Your task to perform on an android device: uninstall "NewsBreak: Local News & Alerts" Image 0: 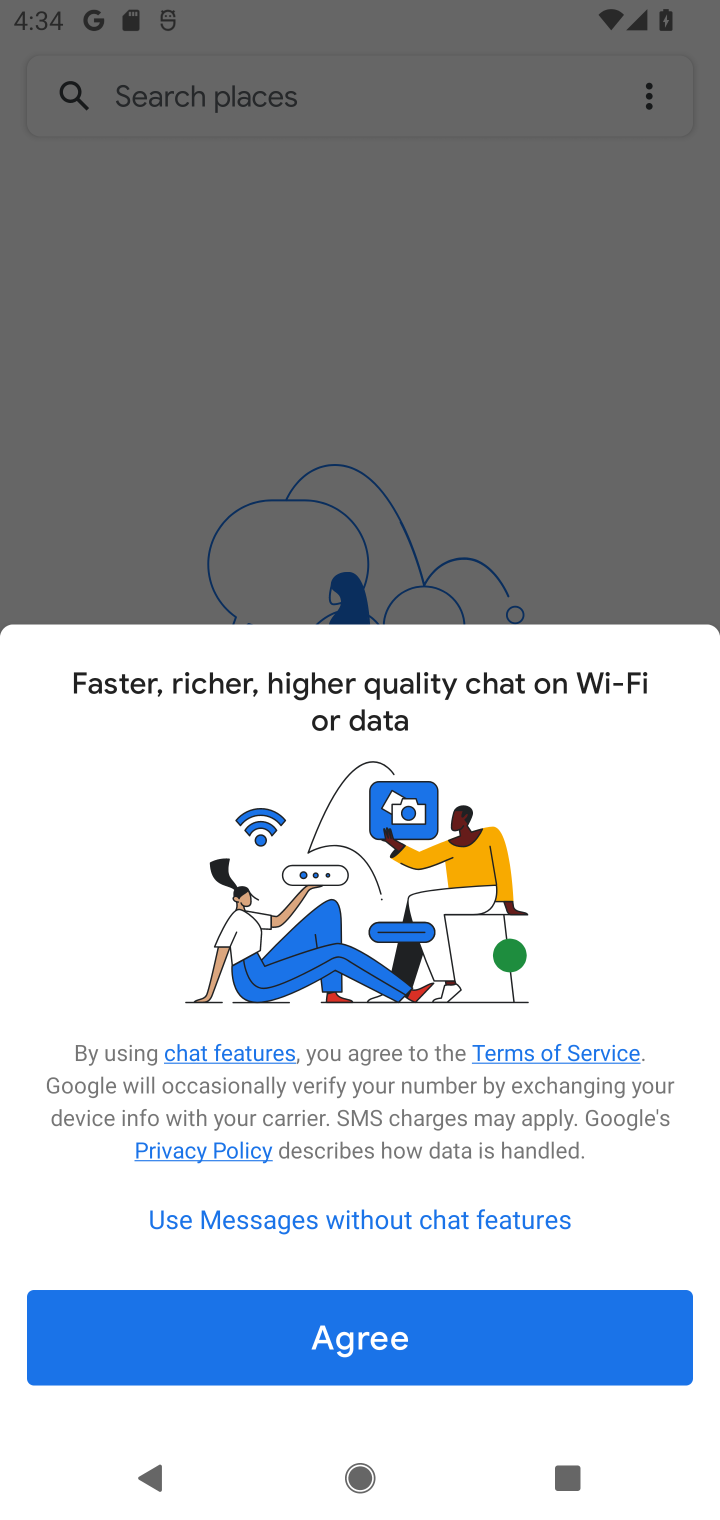
Step 0: press home button
Your task to perform on an android device: uninstall "NewsBreak: Local News & Alerts" Image 1: 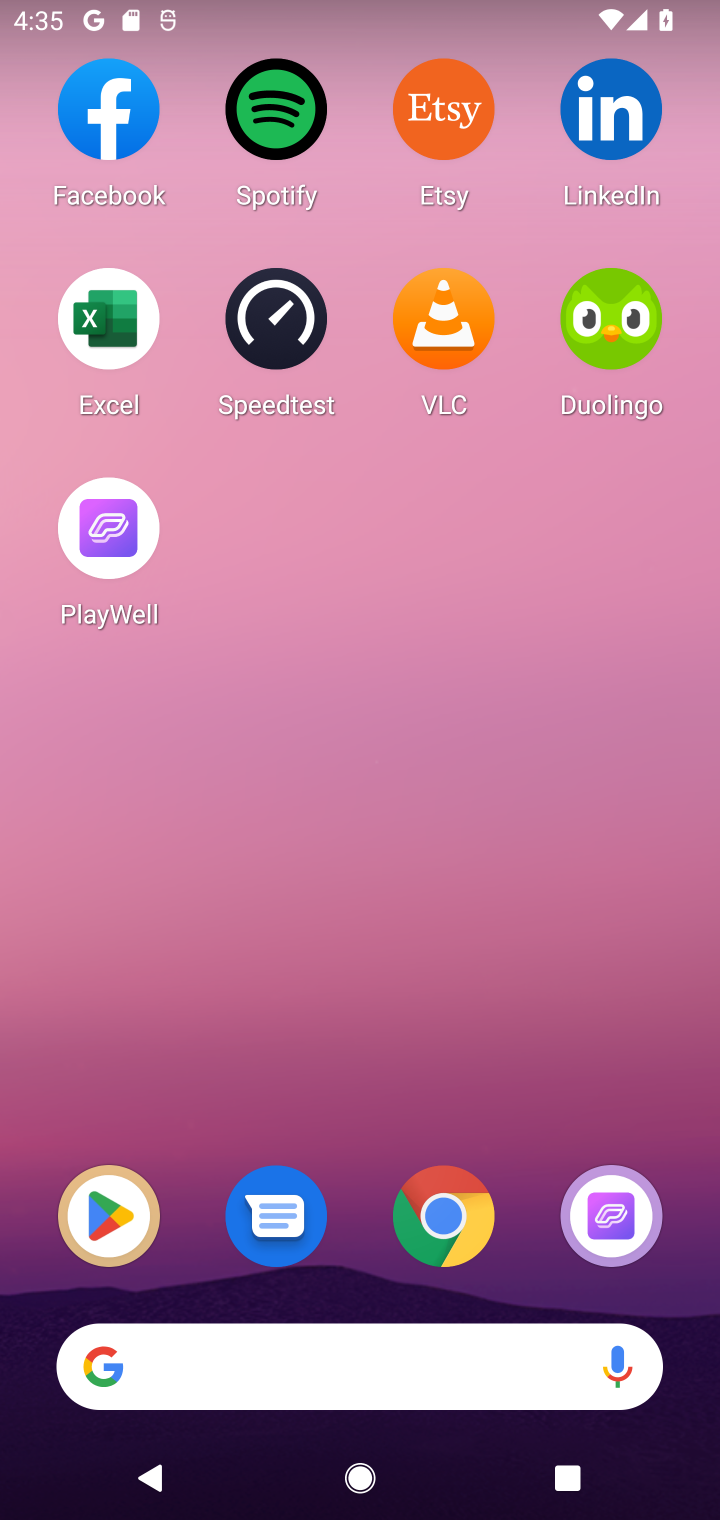
Step 1: click (135, 1202)
Your task to perform on an android device: uninstall "NewsBreak: Local News & Alerts" Image 2: 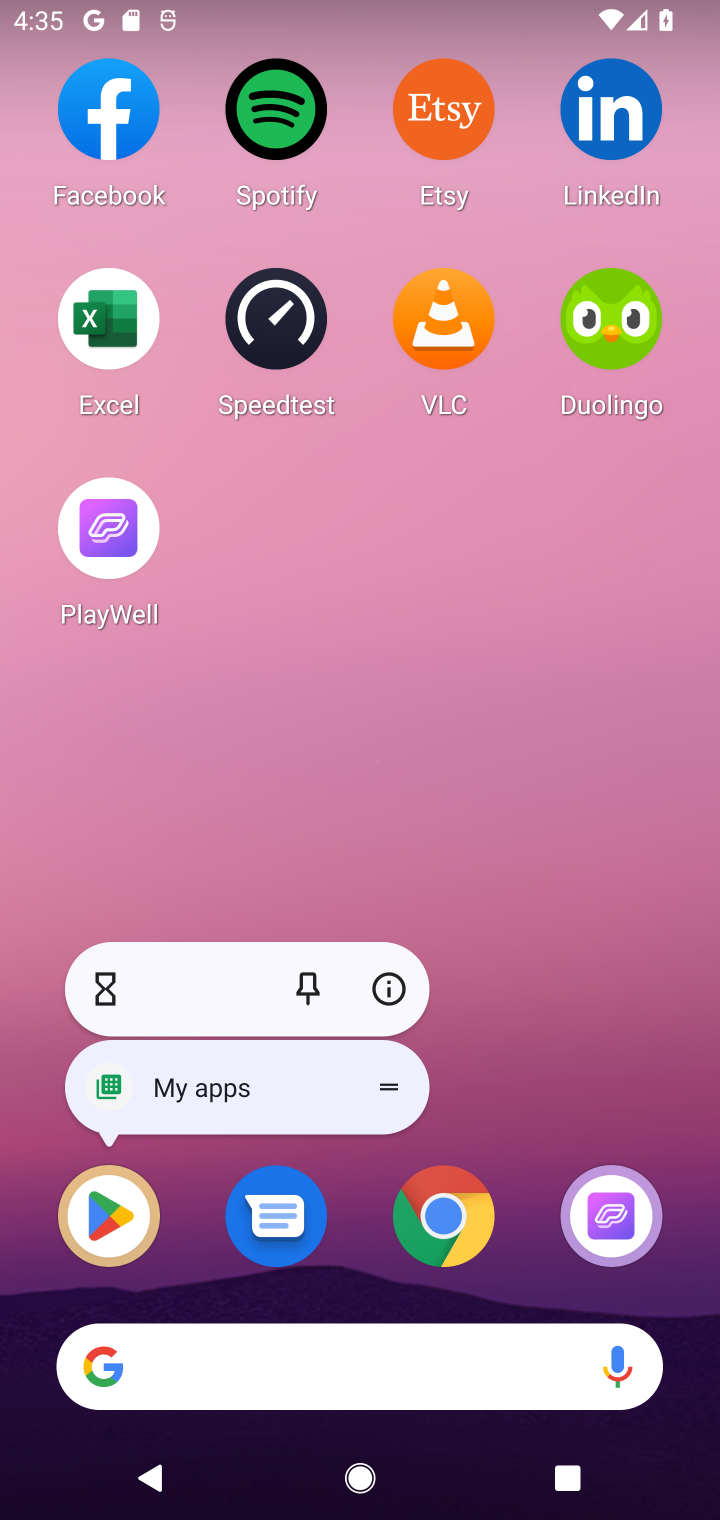
Step 2: click (481, 873)
Your task to perform on an android device: uninstall "NewsBreak: Local News & Alerts" Image 3: 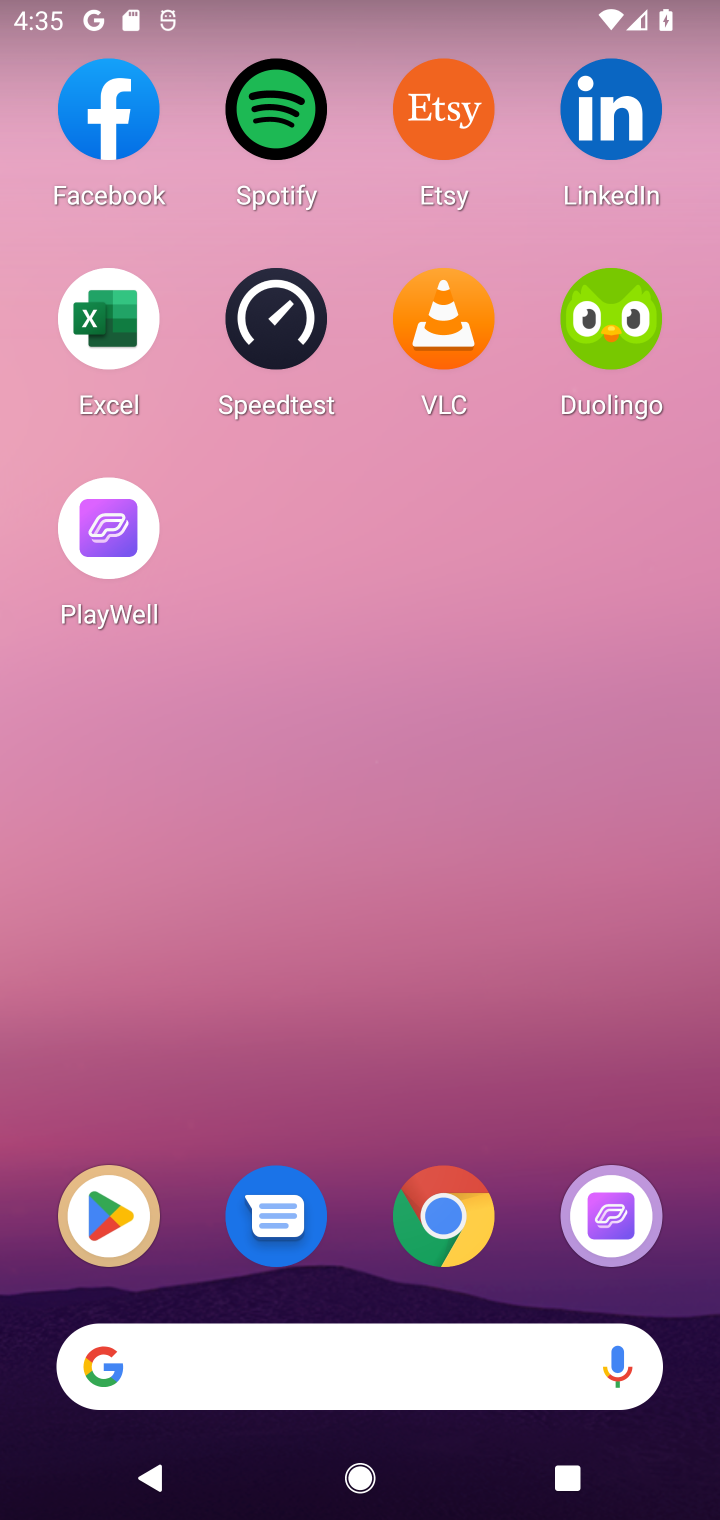
Step 3: click (95, 1248)
Your task to perform on an android device: uninstall "NewsBreak: Local News & Alerts" Image 4: 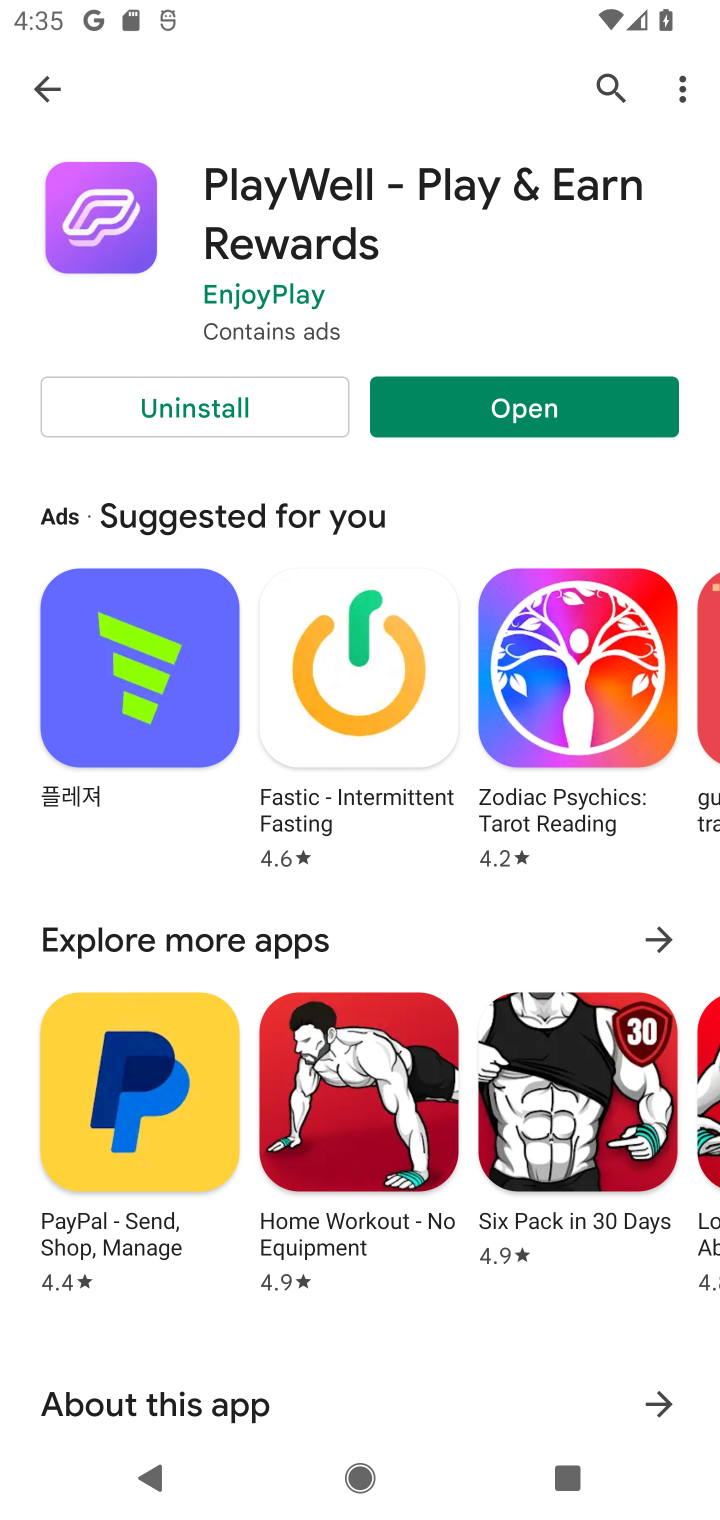
Step 4: click (598, 72)
Your task to perform on an android device: uninstall "NewsBreak: Local News & Alerts" Image 5: 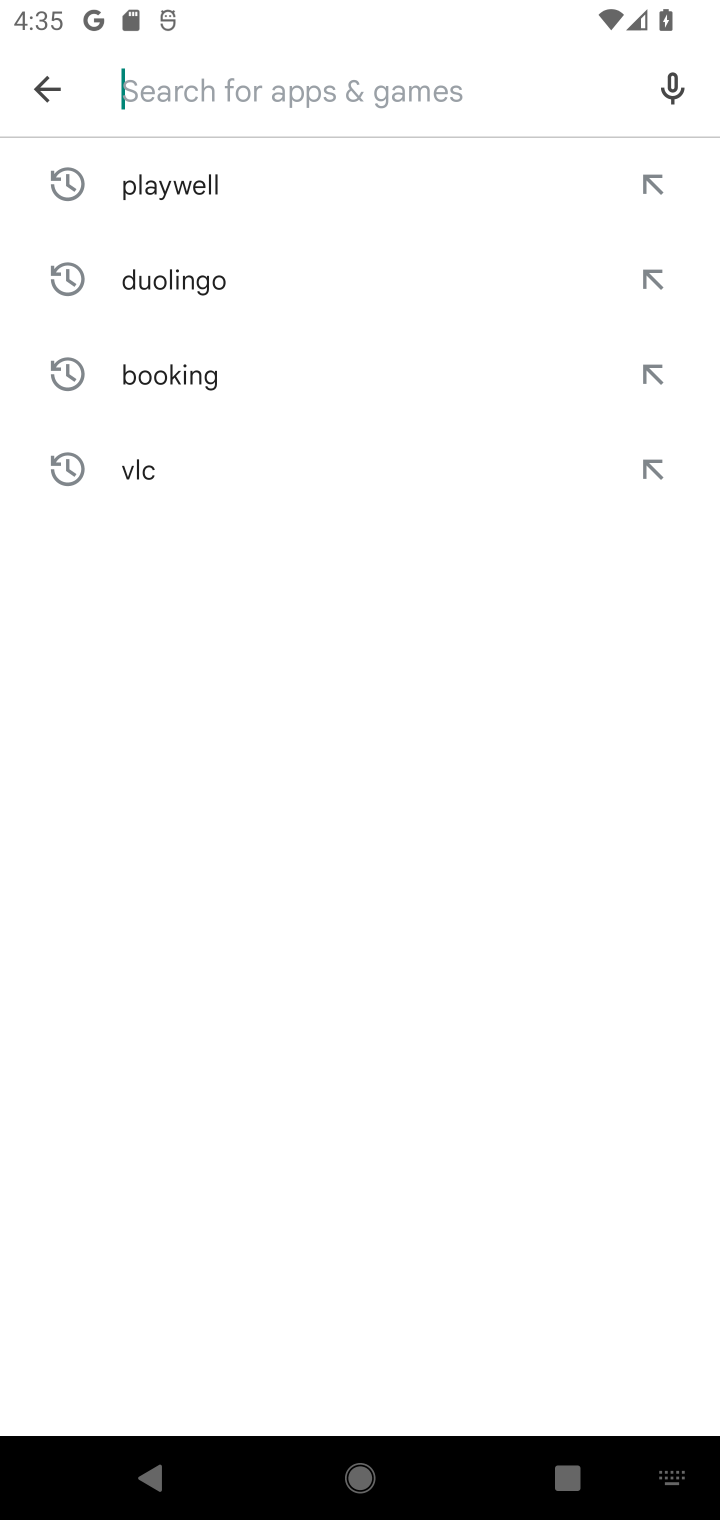
Step 5: click (598, 72)
Your task to perform on an android device: uninstall "NewsBreak: Local News & Alerts" Image 6: 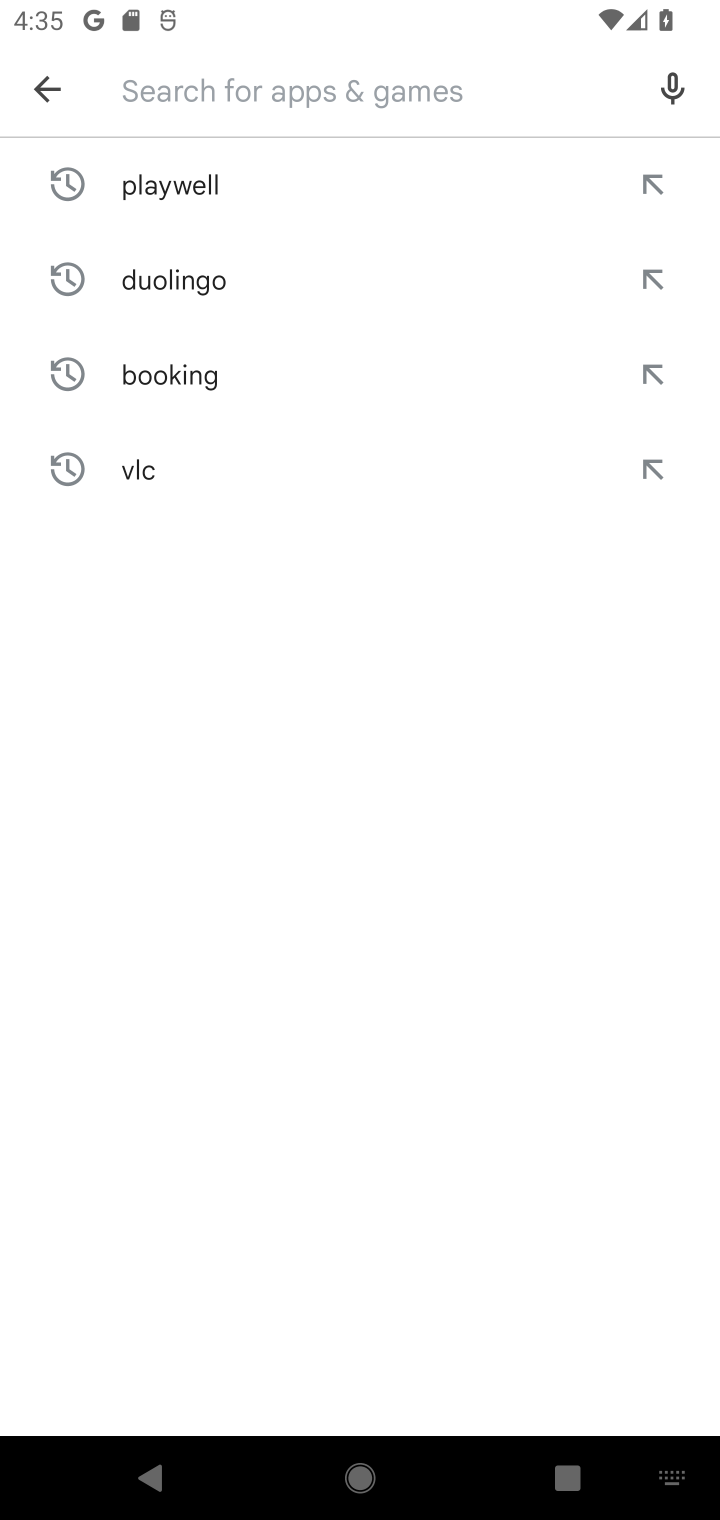
Step 6: type "newsbreak"
Your task to perform on an android device: uninstall "NewsBreak: Local News & Alerts" Image 7: 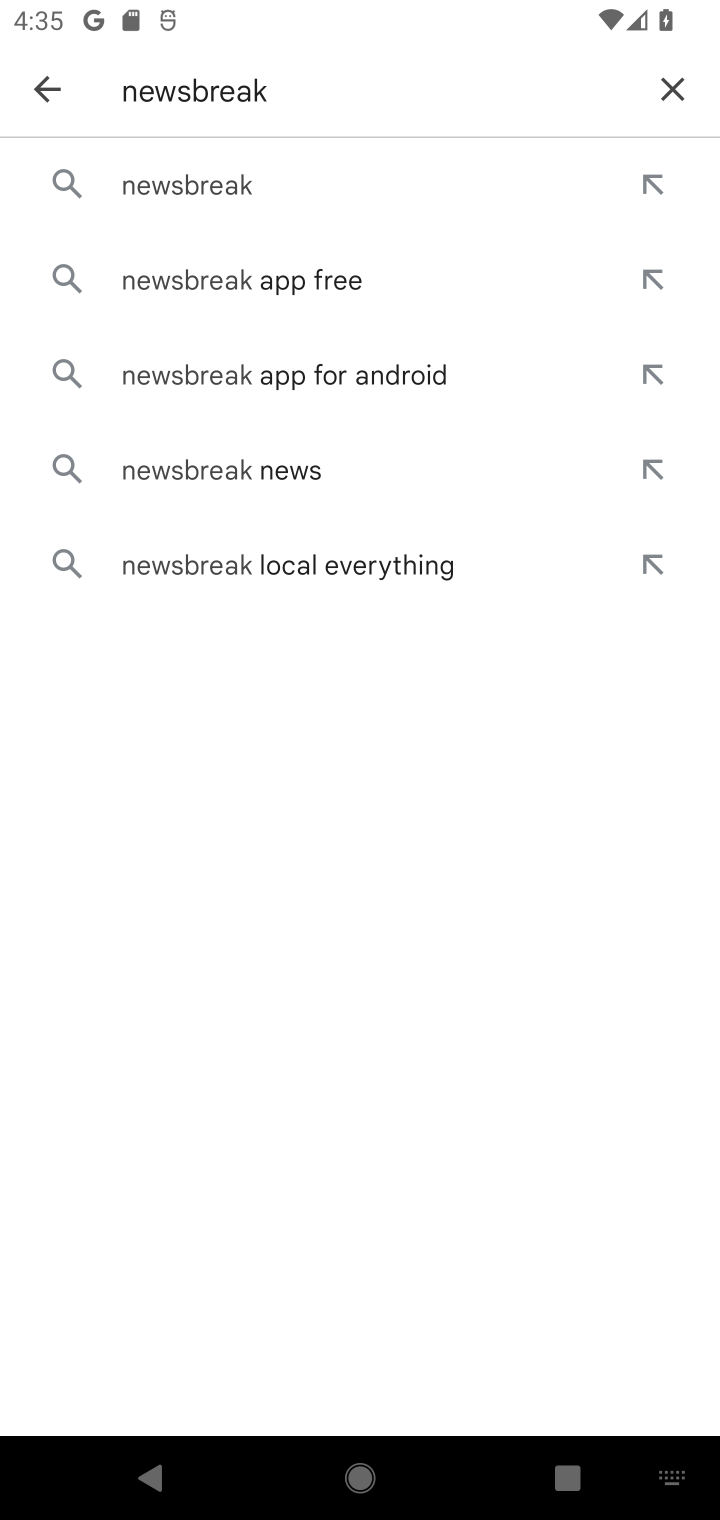
Step 7: click (247, 170)
Your task to perform on an android device: uninstall "NewsBreak: Local News & Alerts" Image 8: 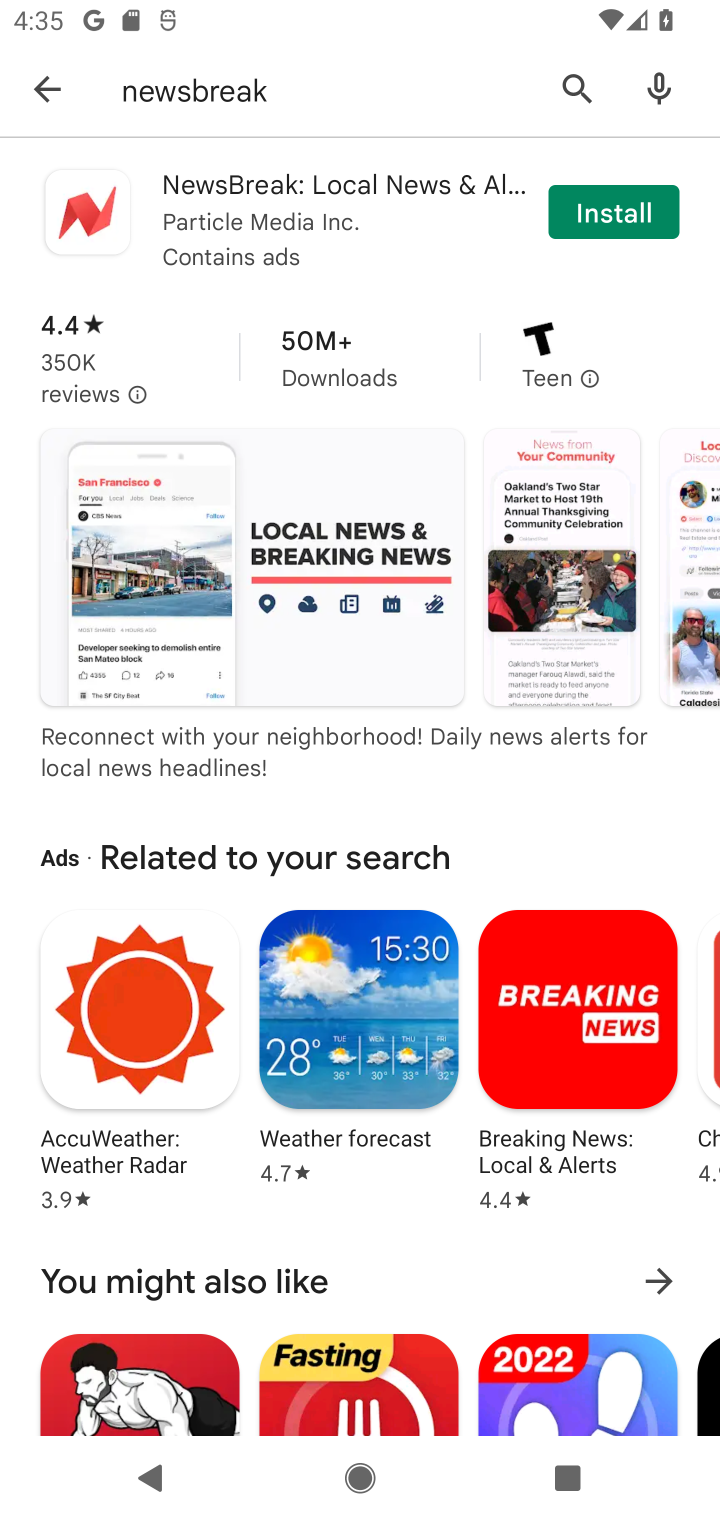
Step 8: click (630, 205)
Your task to perform on an android device: uninstall "NewsBreak: Local News & Alerts" Image 9: 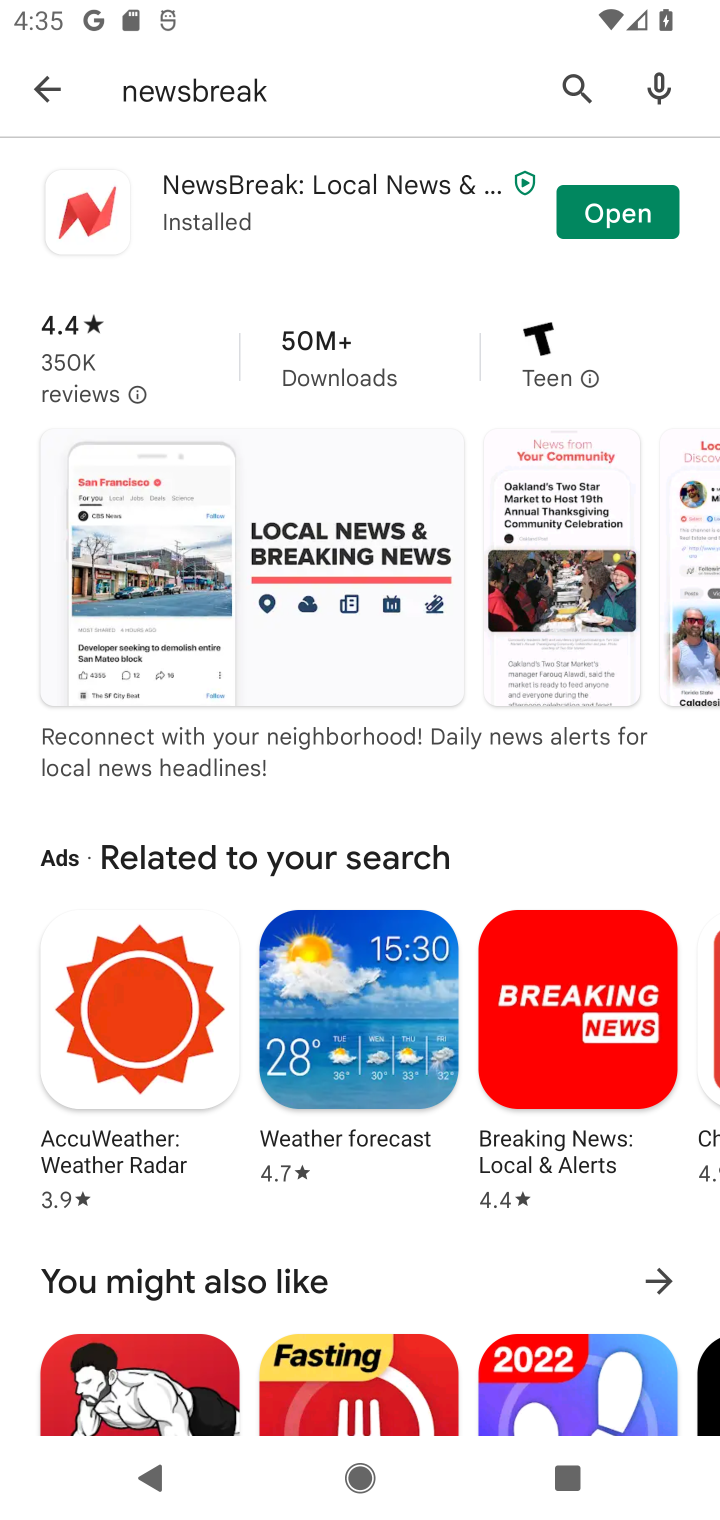
Step 9: click (630, 205)
Your task to perform on an android device: uninstall "NewsBreak: Local News & Alerts" Image 10: 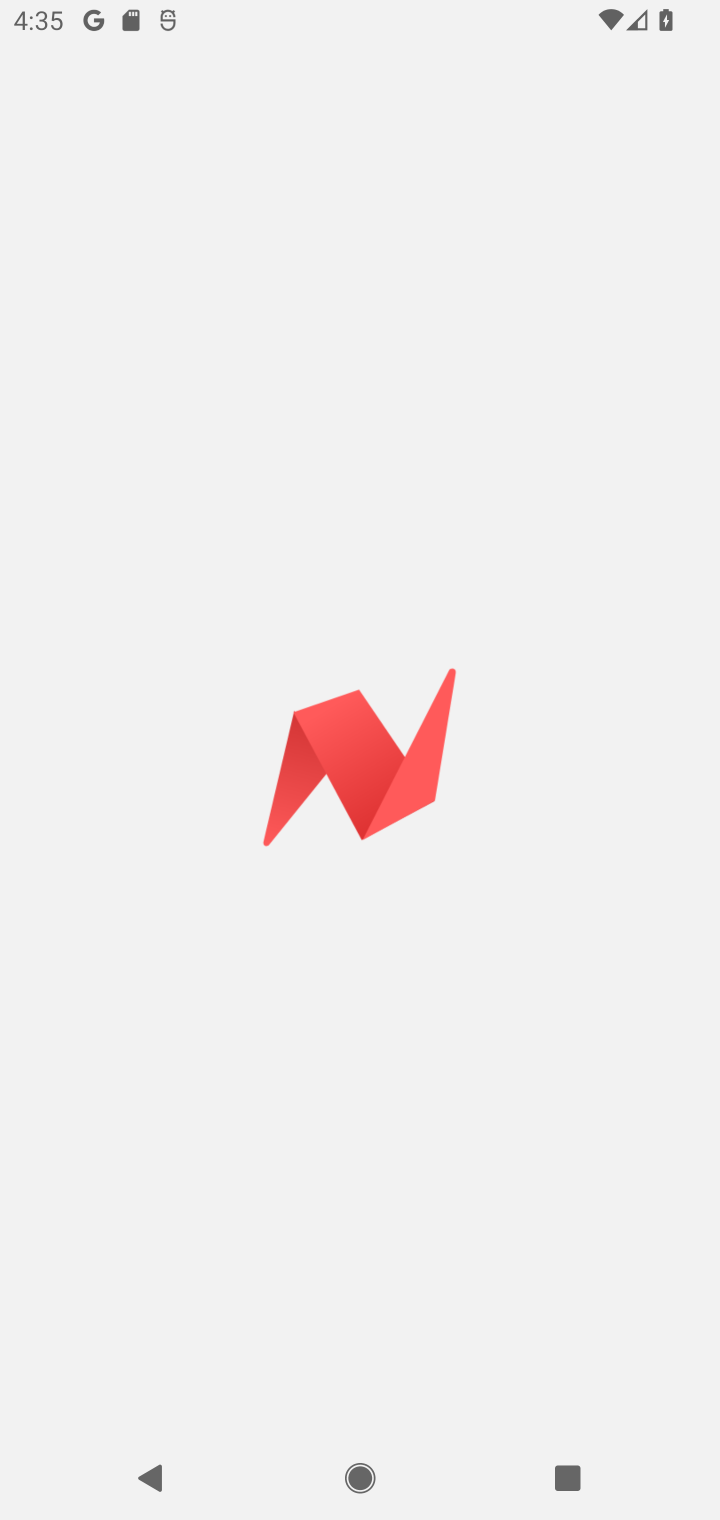
Step 10: task complete